Your task to perform on an android device: star an email in the gmail app Image 0: 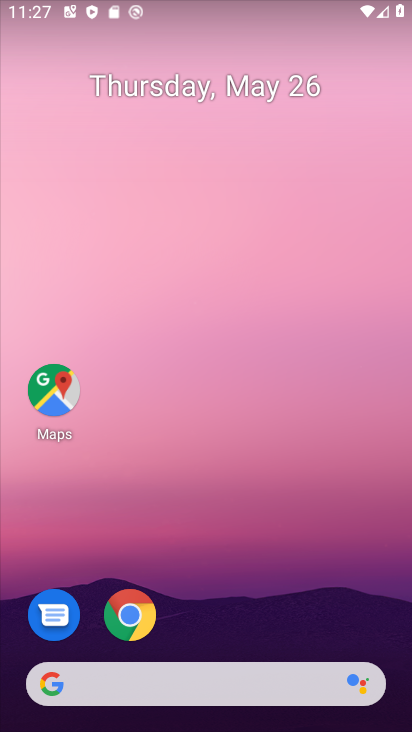
Step 0: drag from (293, 710) to (300, 236)
Your task to perform on an android device: star an email in the gmail app Image 1: 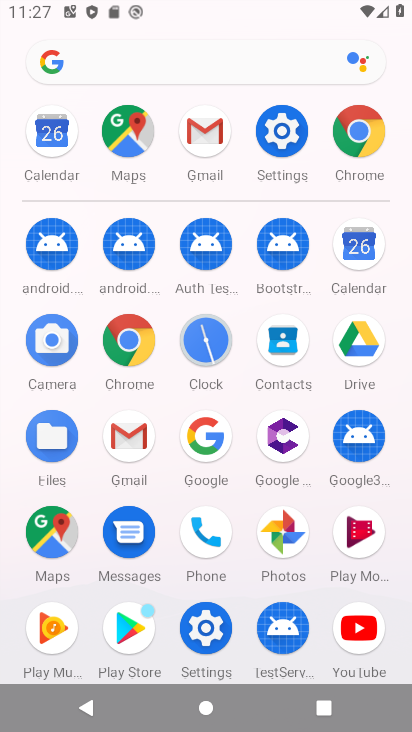
Step 1: click (134, 448)
Your task to perform on an android device: star an email in the gmail app Image 2: 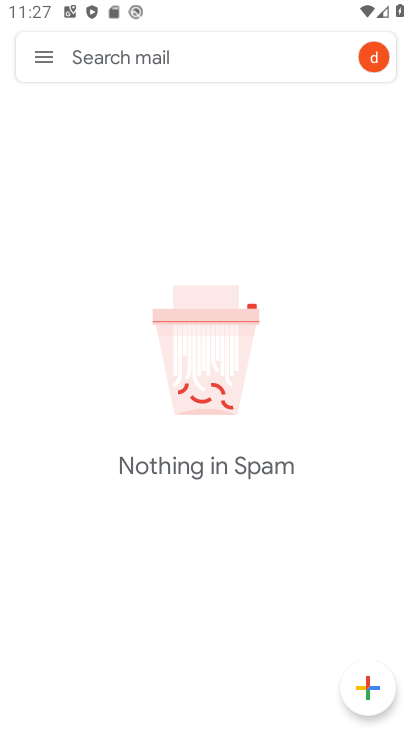
Step 2: click (47, 52)
Your task to perform on an android device: star an email in the gmail app Image 3: 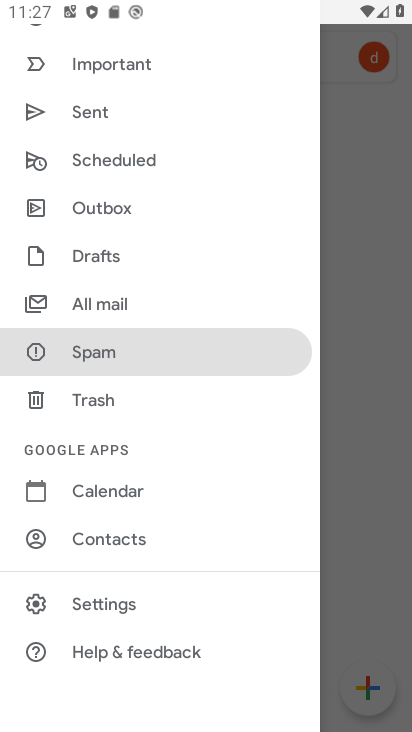
Step 3: drag from (128, 173) to (170, 717)
Your task to perform on an android device: star an email in the gmail app Image 4: 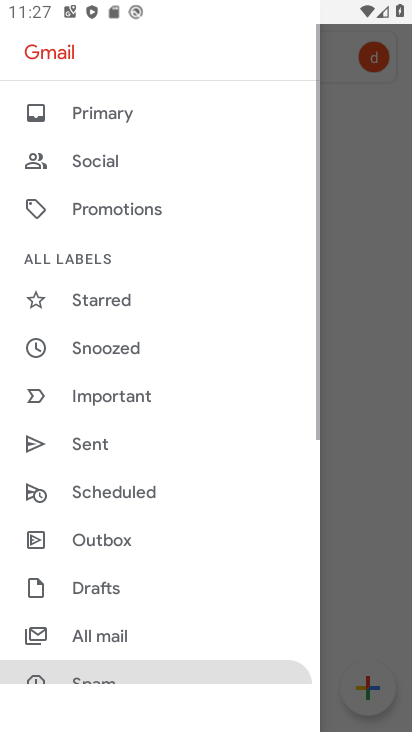
Step 4: click (96, 301)
Your task to perform on an android device: star an email in the gmail app Image 5: 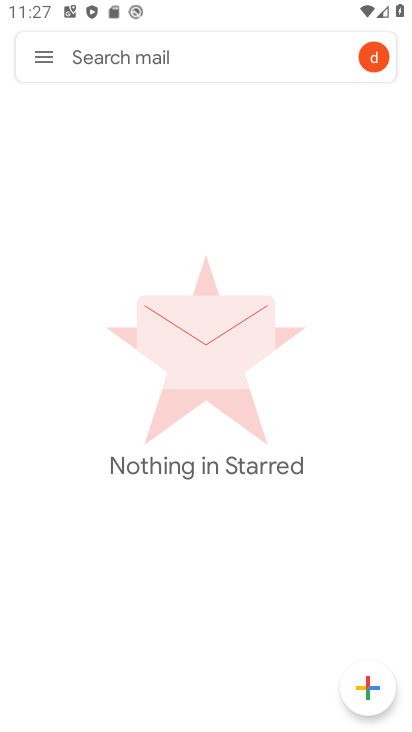
Step 5: task complete